Your task to perform on an android device: Search for usb-b on costco.com, select the first entry, add it to the cart, then select checkout. Image 0: 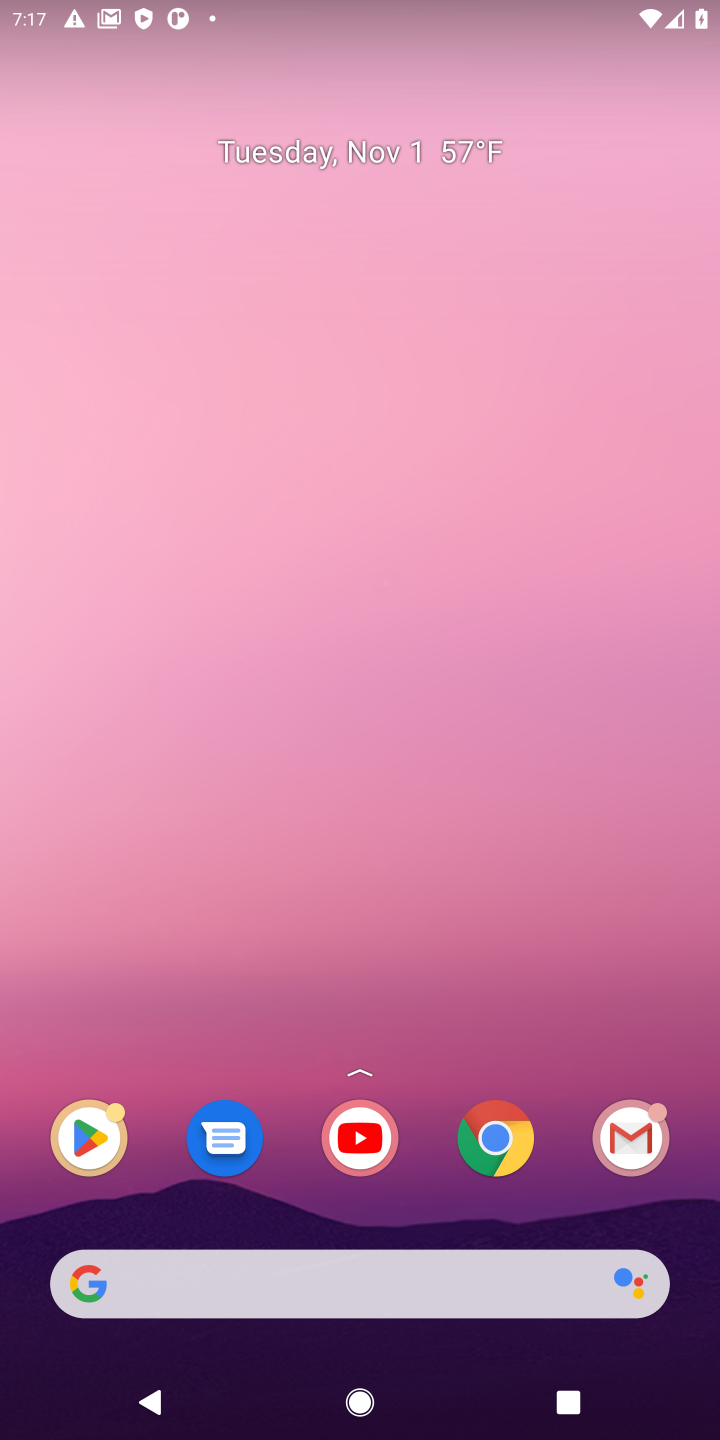
Step 0: click (496, 1150)
Your task to perform on an android device: Search for usb-b on costco.com, select the first entry, add it to the cart, then select checkout. Image 1: 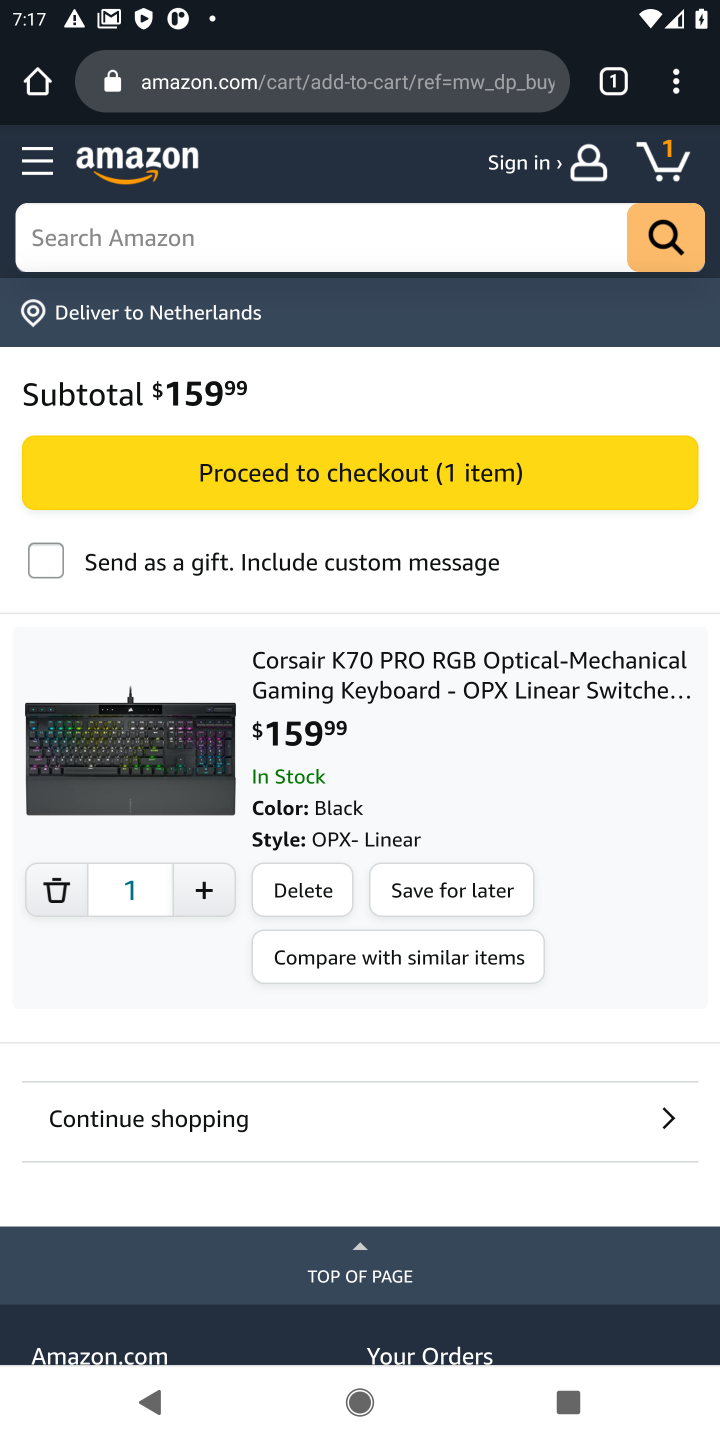
Step 1: click (253, 97)
Your task to perform on an android device: Search for usb-b on costco.com, select the first entry, add it to the cart, then select checkout. Image 2: 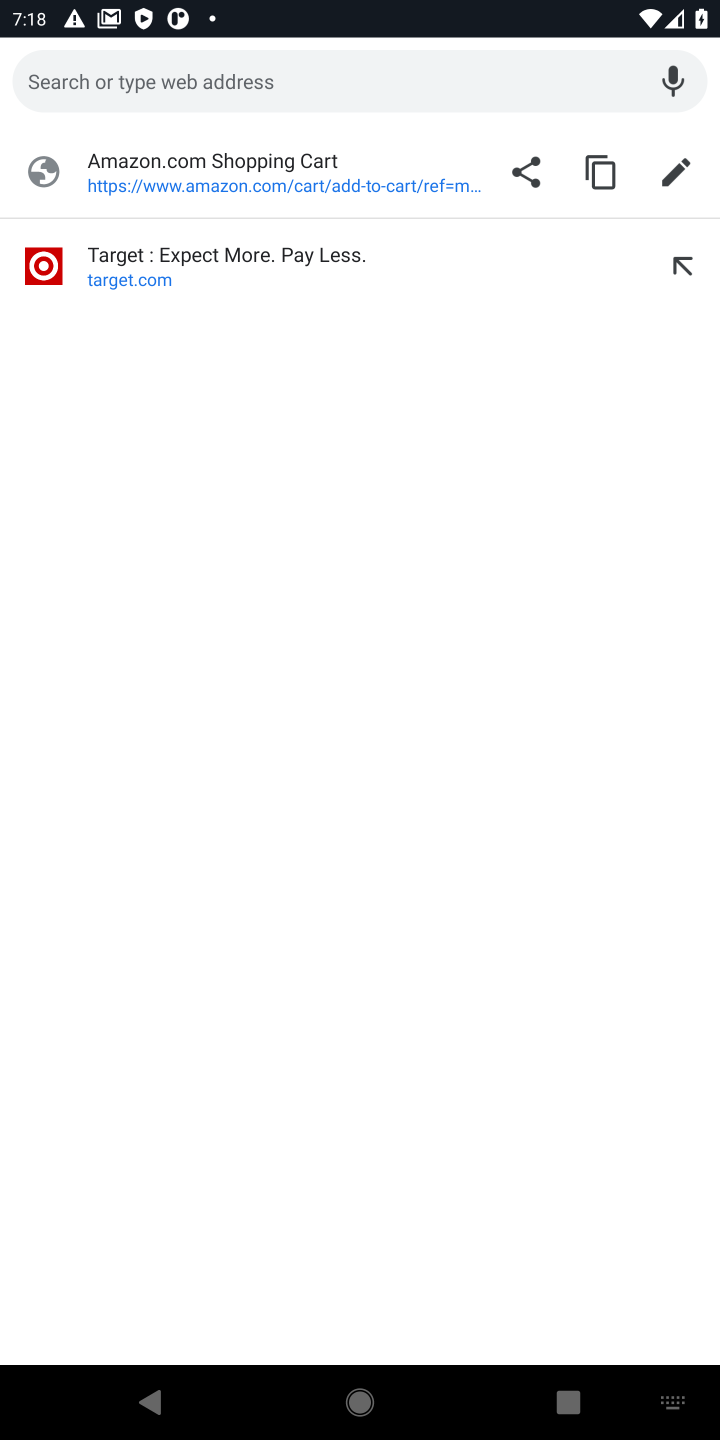
Step 2: type "costco.com"
Your task to perform on an android device: Search for usb-b on costco.com, select the first entry, add it to the cart, then select checkout. Image 3: 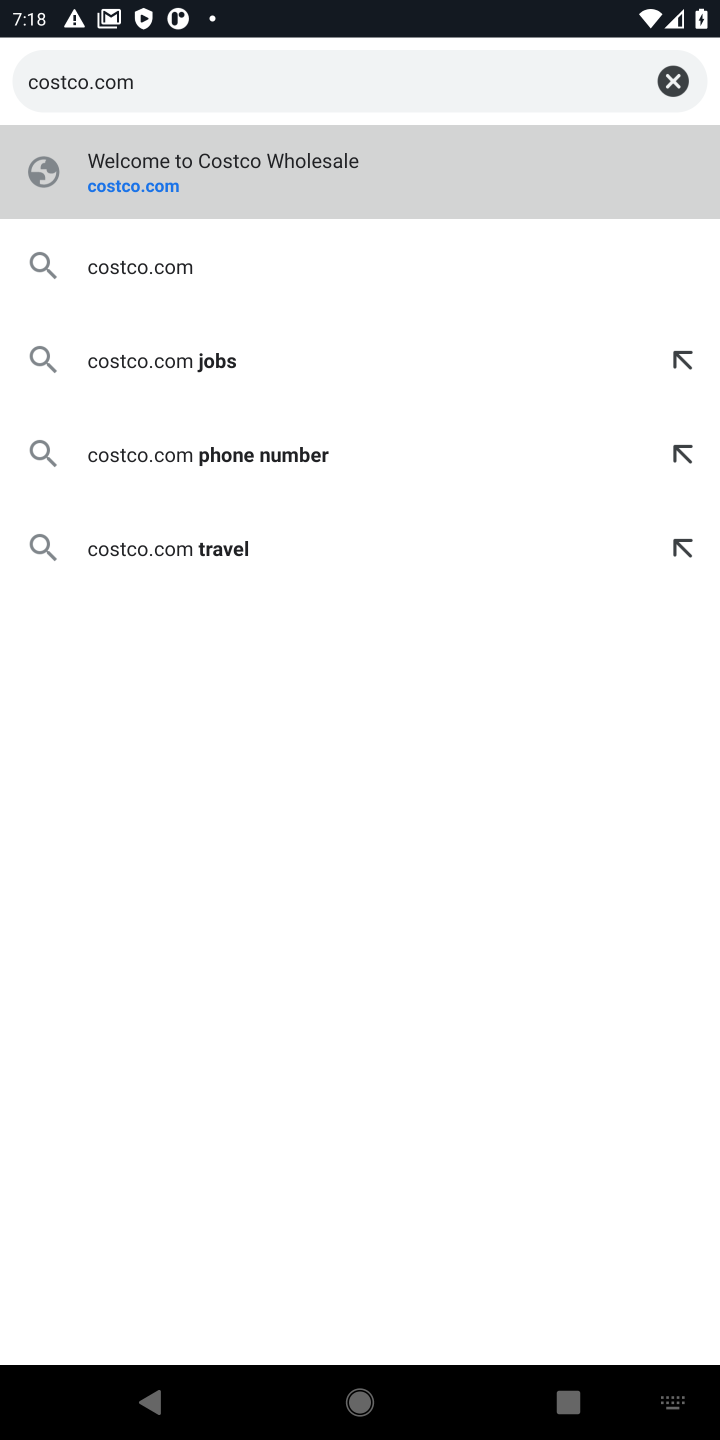
Step 3: click (154, 186)
Your task to perform on an android device: Search for usb-b on costco.com, select the first entry, add it to the cart, then select checkout. Image 4: 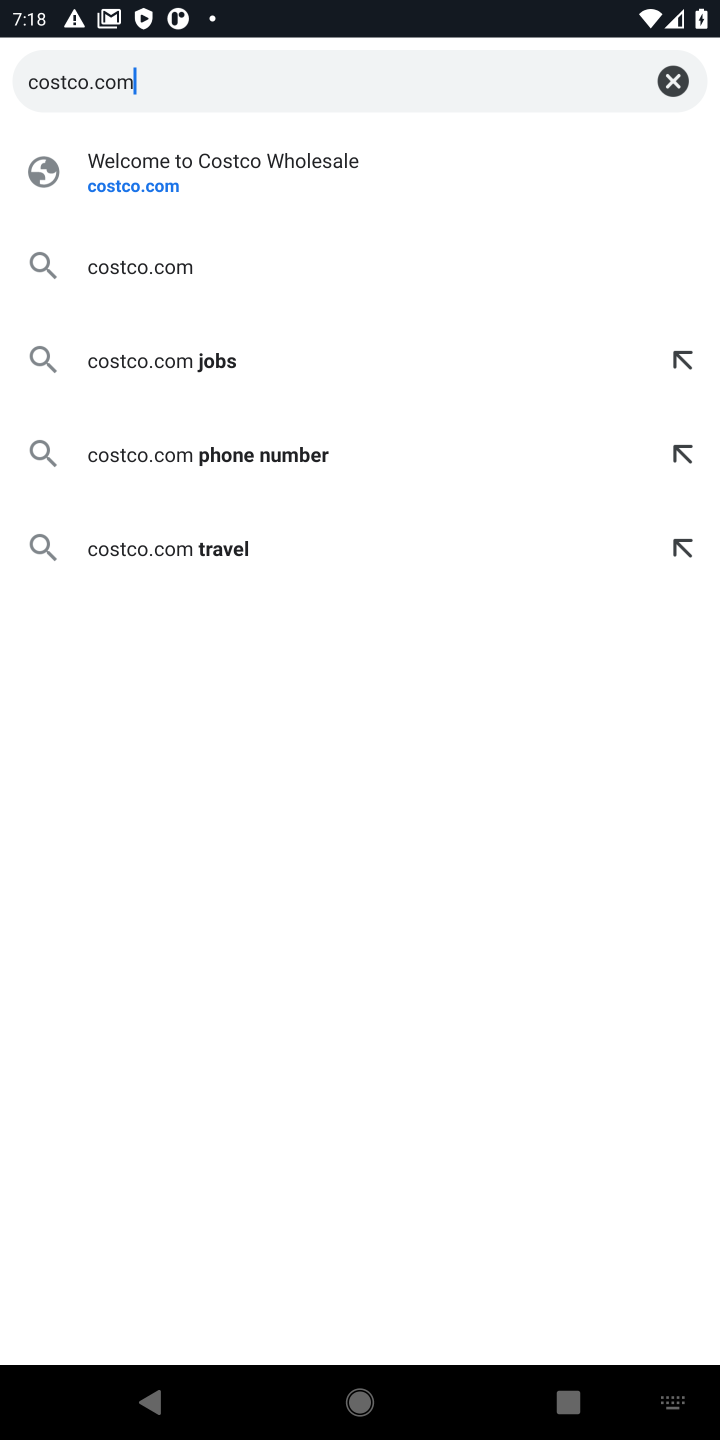
Step 4: click (149, 186)
Your task to perform on an android device: Search for usb-b on costco.com, select the first entry, add it to the cart, then select checkout. Image 5: 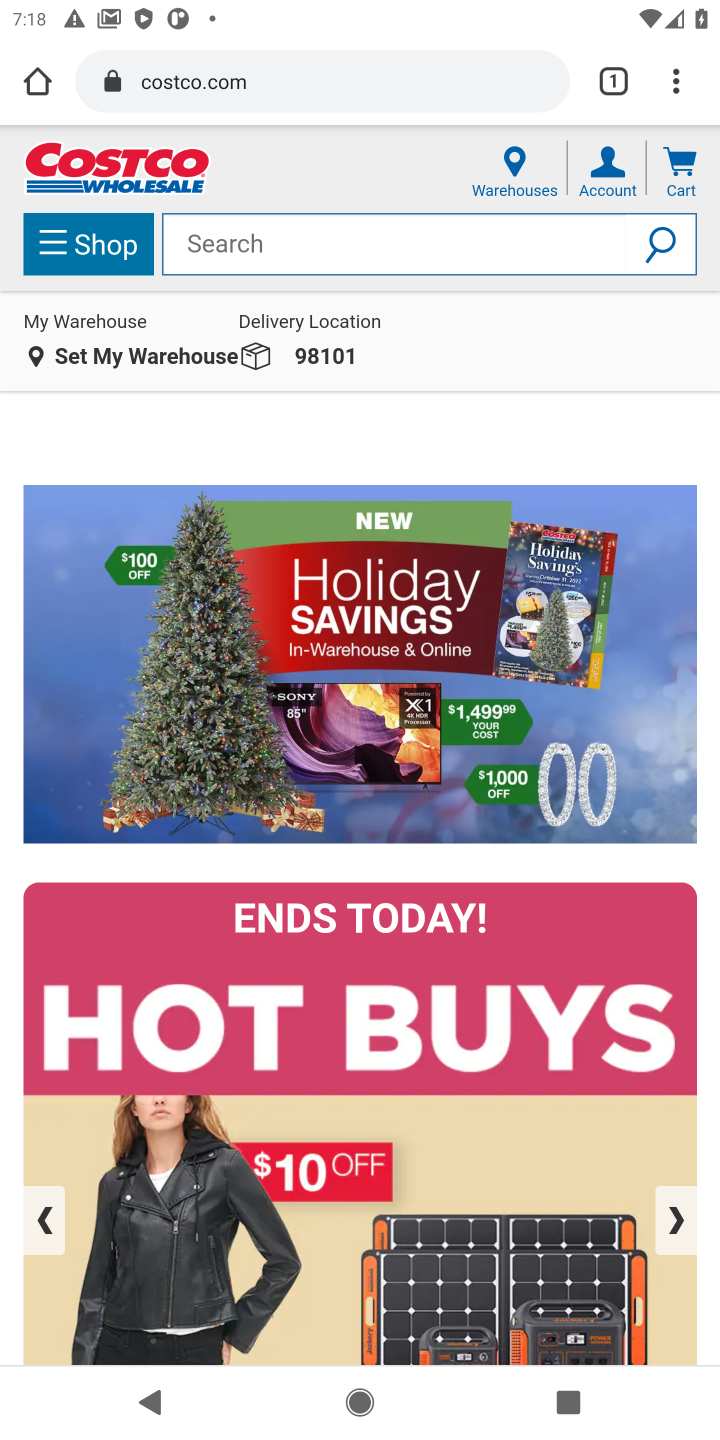
Step 5: click (229, 252)
Your task to perform on an android device: Search for usb-b on costco.com, select the first entry, add it to the cart, then select checkout. Image 6: 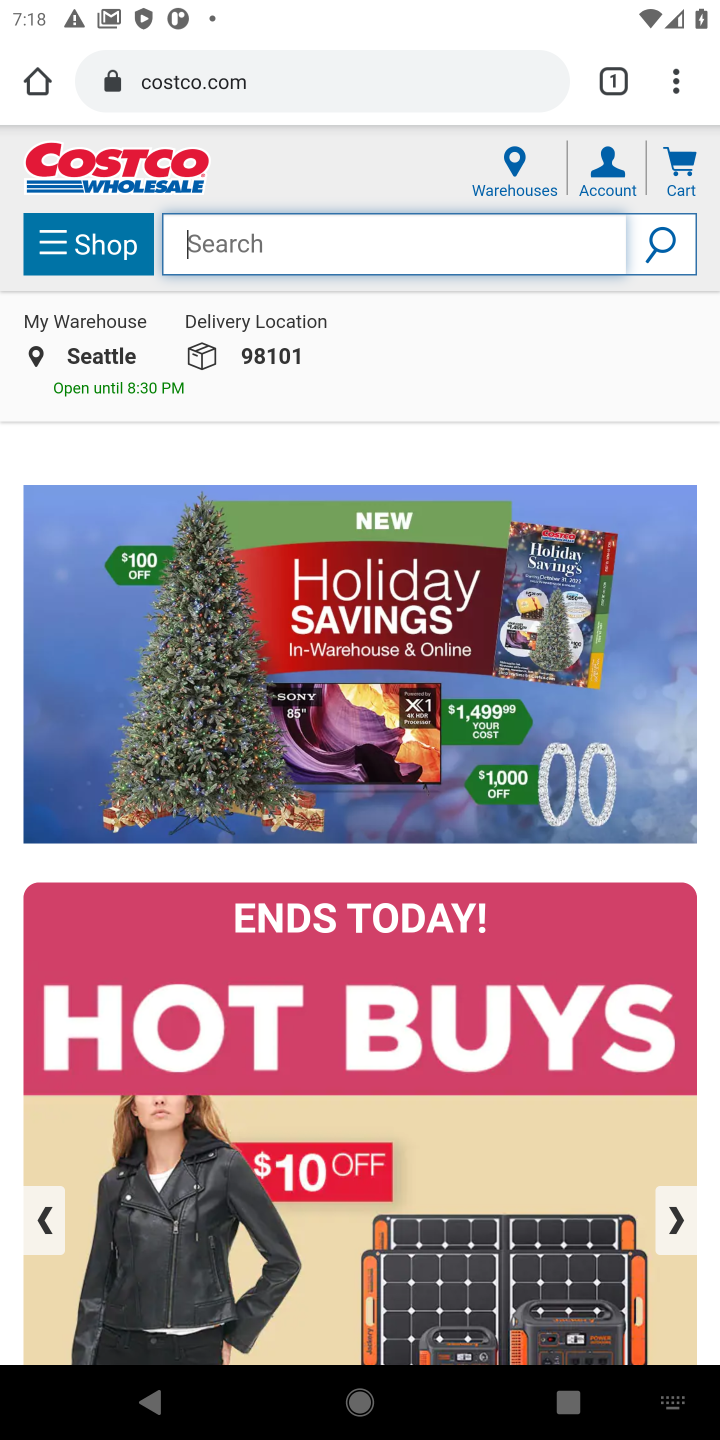
Step 6: type "usb-b"
Your task to perform on an android device: Search for usb-b on costco.com, select the first entry, add it to the cart, then select checkout. Image 7: 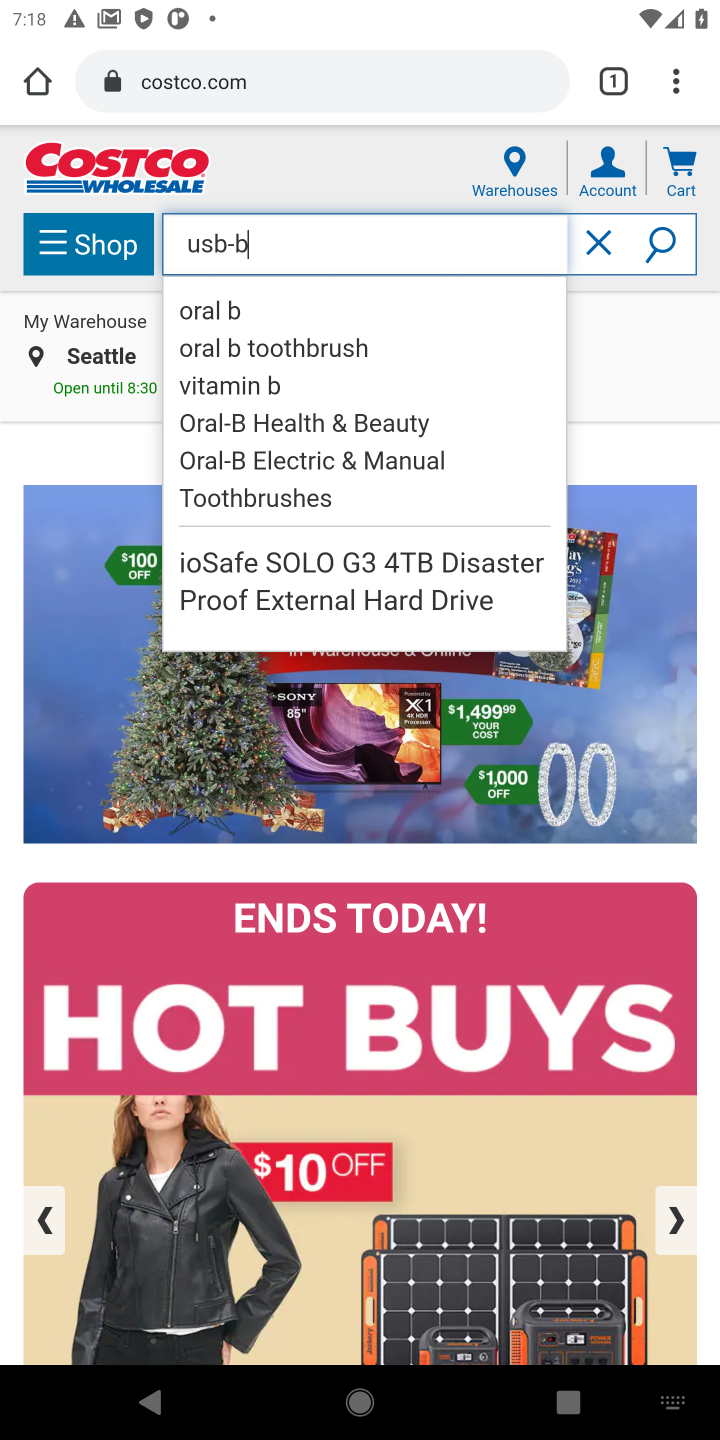
Step 7: click (659, 241)
Your task to perform on an android device: Search for usb-b on costco.com, select the first entry, add it to the cart, then select checkout. Image 8: 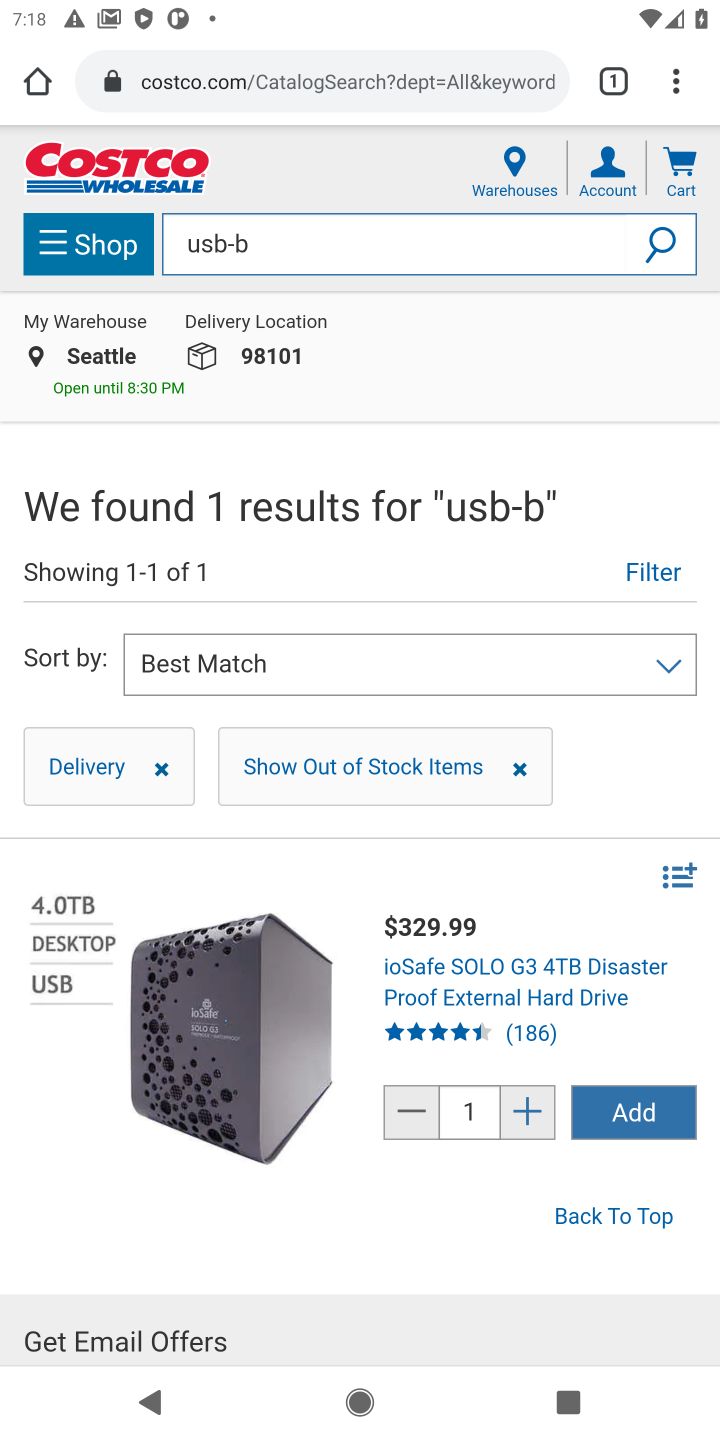
Step 8: task complete